Your task to perform on an android device: Go to location settings Image 0: 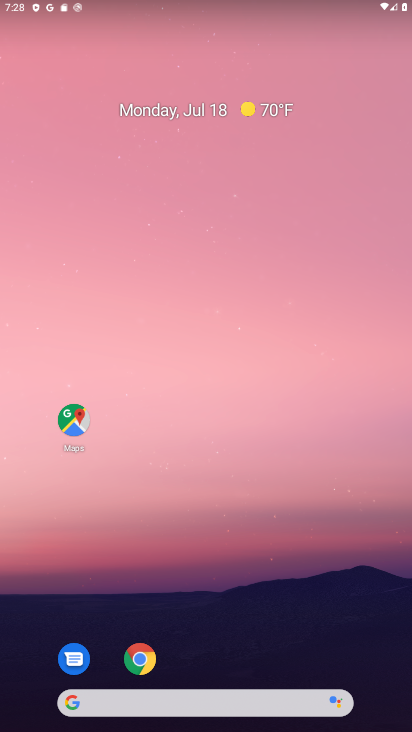
Step 0: drag from (228, 701) to (224, 256)
Your task to perform on an android device: Go to location settings Image 1: 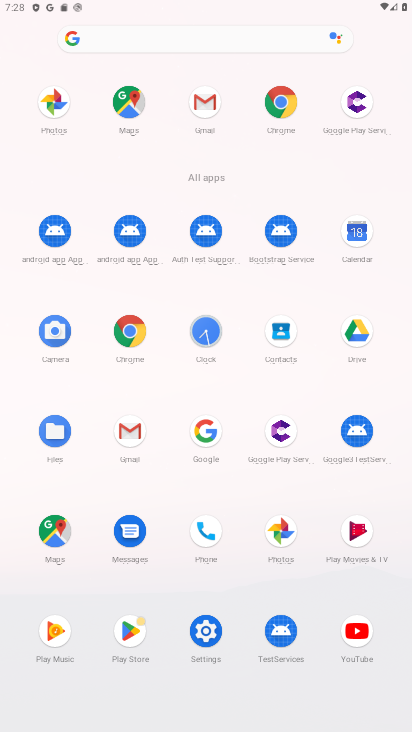
Step 1: click (205, 631)
Your task to perform on an android device: Go to location settings Image 2: 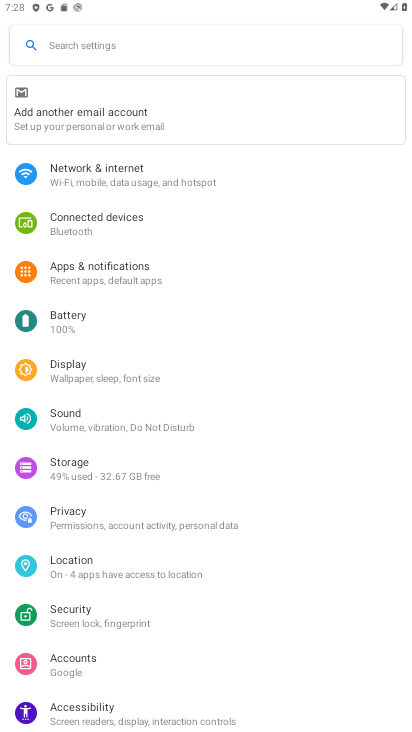
Step 2: click (113, 574)
Your task to perform on an android device: Go to location settings Image 3: 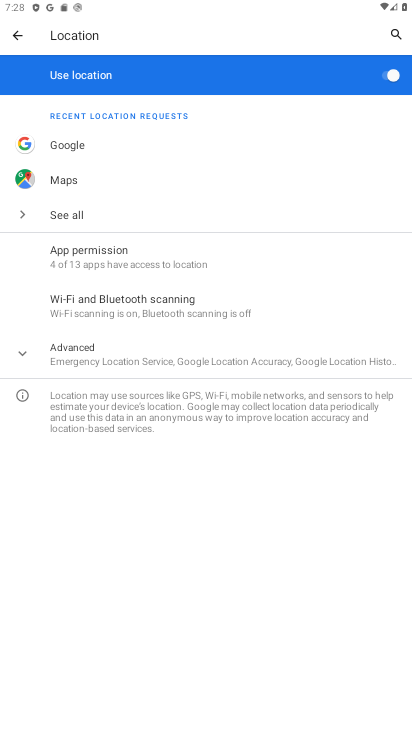
Step 3: task complete